Your task to perform on an android device: Show me the alarms in the clock app Image 0: 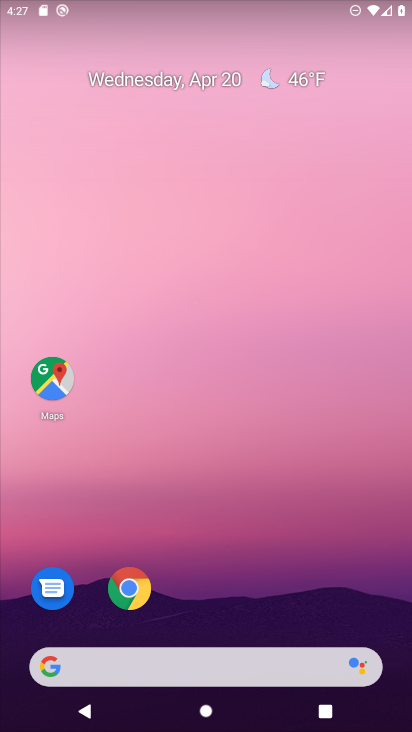
Step 0: drag from (213, 725) to (178, 151)
Your task to perform on an android device: Show me the alarms in the clock app Image 1: 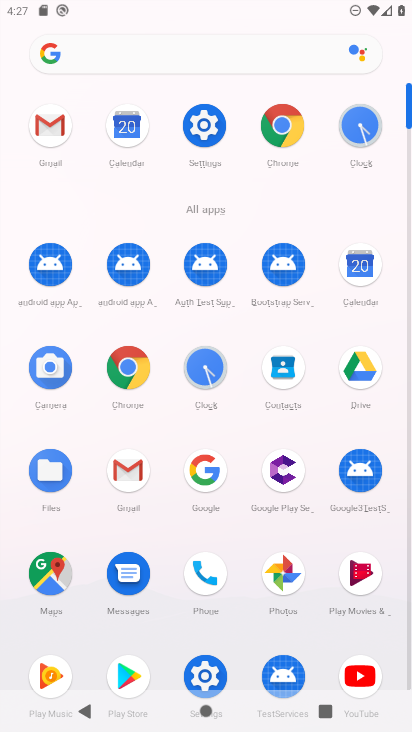
Step 1: click (361, 123)
Your task to perform on an android device: Show me the alarms in the clock app Image 2: 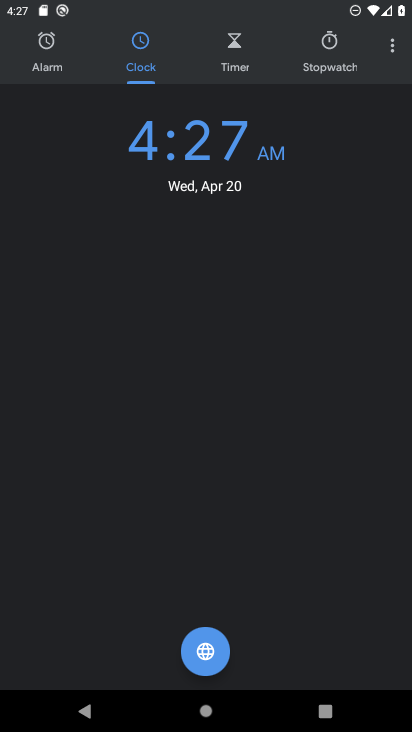
Step 2: click (46, 48)
Your task to perform on an android device: Show me the alarms in the clock app Image 3: 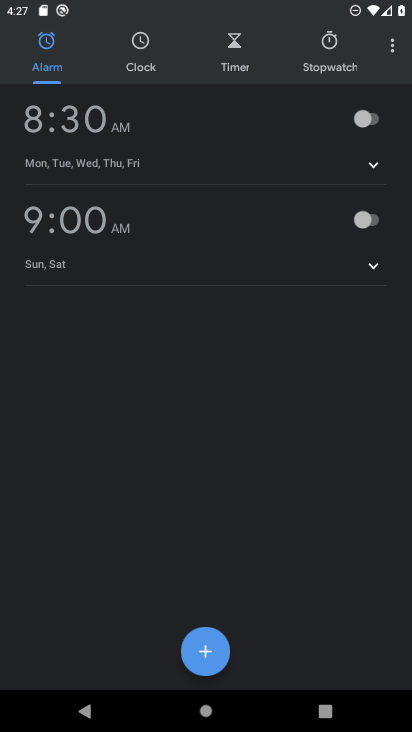
Step 3: task complete